Your task to perform on an android device: Open Google Maps Image 0: 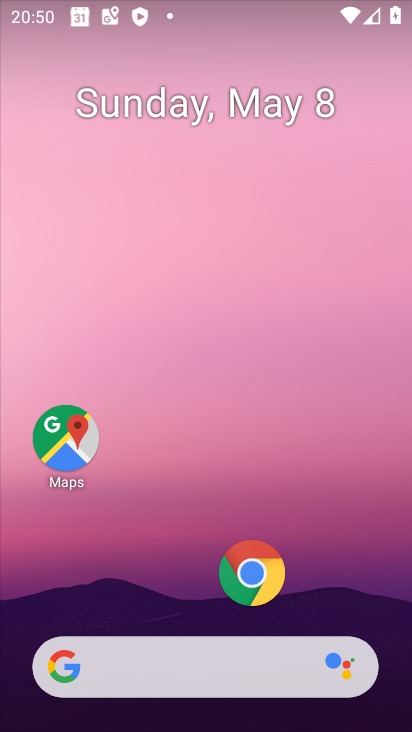
Step 0: click (57, 437)
Your task to perform on an android device: Open Google Maps Image 1: 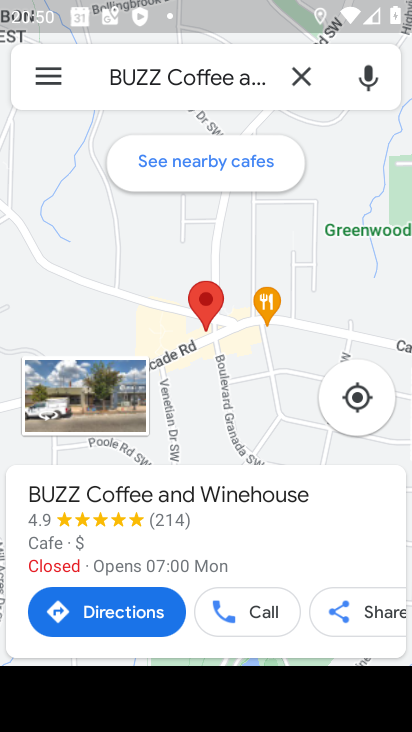
Step 1: task complete